Your task to perform on an android device: clear history in the chrome app Image 0: 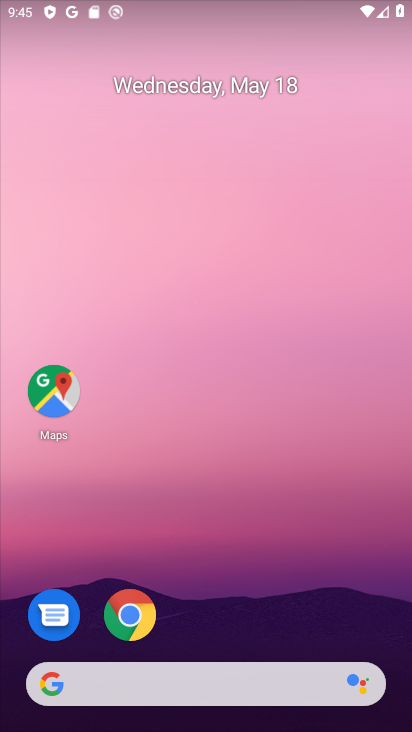
Step 0: click (142, 615)
Your task to perform on an android device: clear history in the chrome app Image 1: 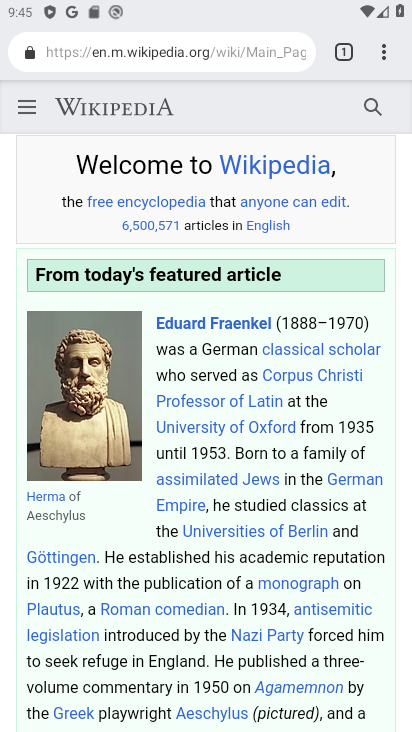
Step 1: click (389, 52)
Your task to perform on an android device: clear history in the chrome app Image 2: 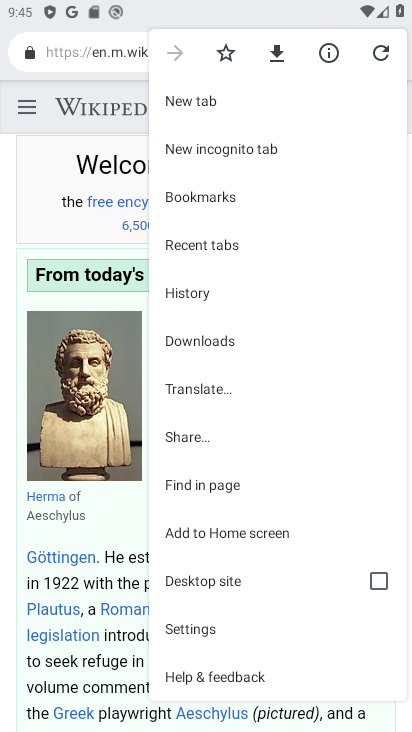
Step 2: click (190, 290)
Your task to perform on an android device: clear history in the chrome app Image 3: 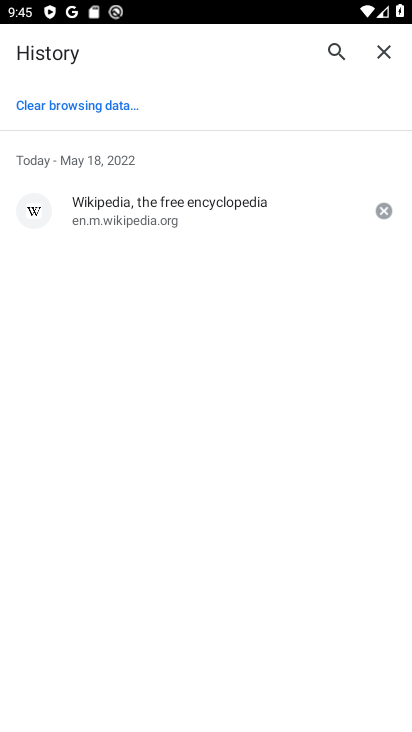
Step 3: click (114, 100)
Your task to perform on an android device: clear history in the chrome app Image 4: 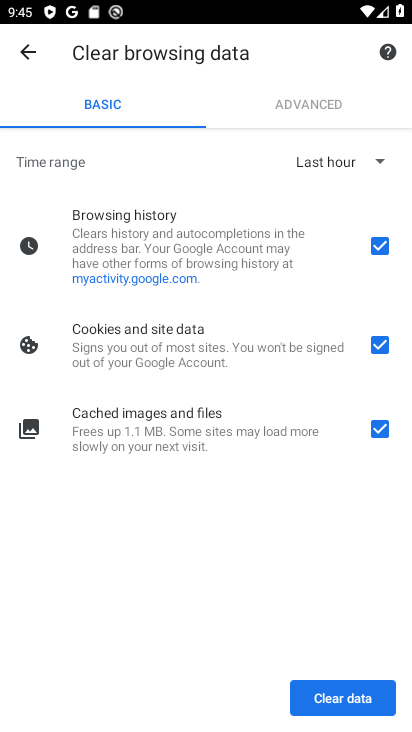
Step 4: click (382, 349)
Your task to perform on an android device: clear history in the chrome app Image 5: 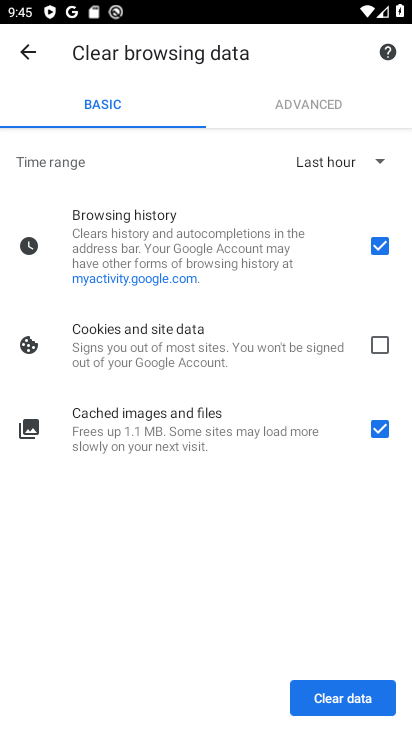
Step 5: click (377, 431)
Your task to perform on an android device: clear history in the chrome app Image 6: 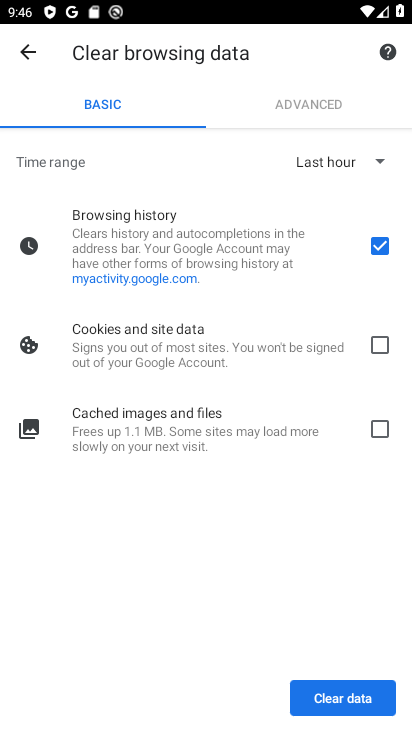
Step 6: click (359, 699)
Your task to perform on an android device: clear history in the chrome app Image 7: 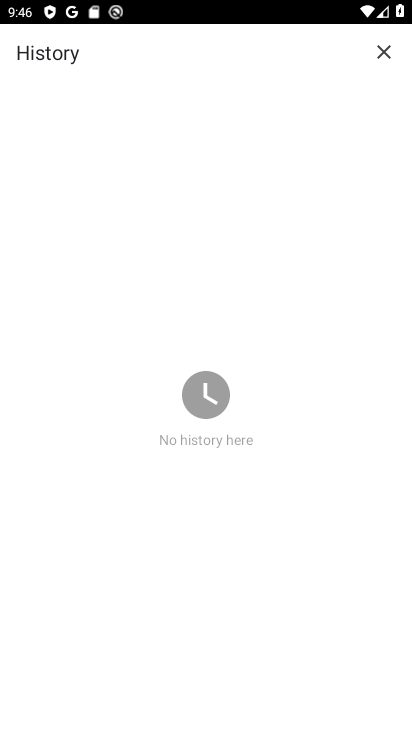
Step 7: task complete